Your task to perform on an android device: turn off javascript in the chrome app Image 0: 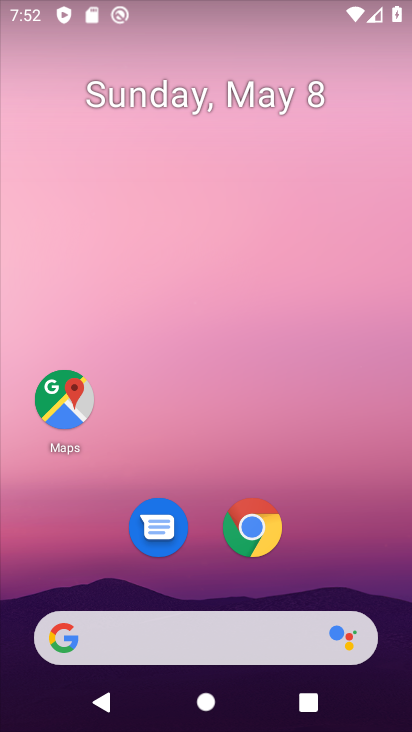
Step 0: drag from (333, 366) to (334, 30)
Your task to perform on an android device: turn off javascript in the chrome app Image 1: 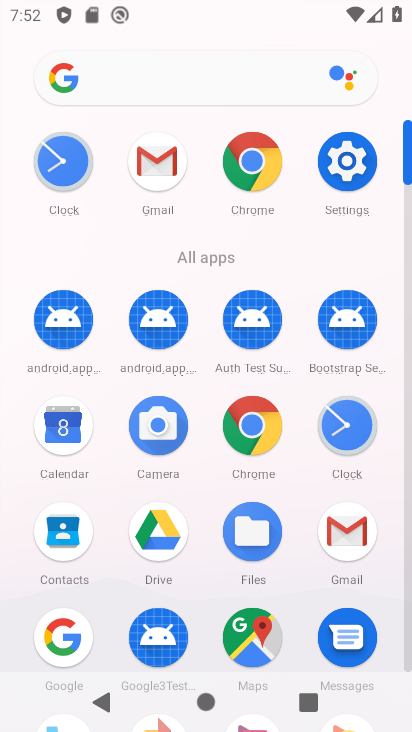
Step 1: drag from (21, 571) to (20, 253)
Your task to perform on an android device: turn off javascript in the chrome app Image 2: 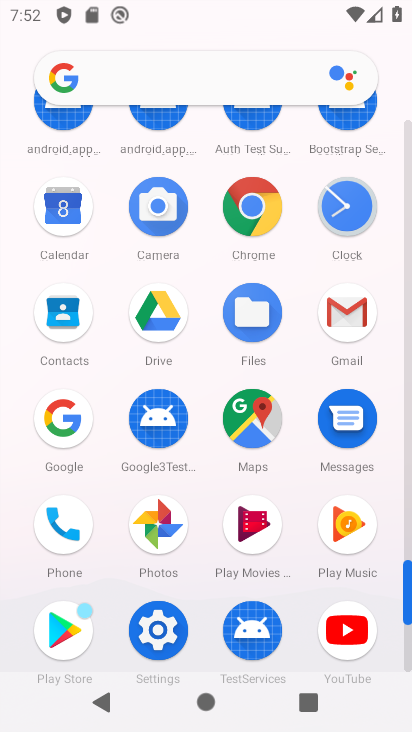
Step 2: click (251, 205)
Your task to perform on an android device: turn off javascript in the chrome app Image 3: 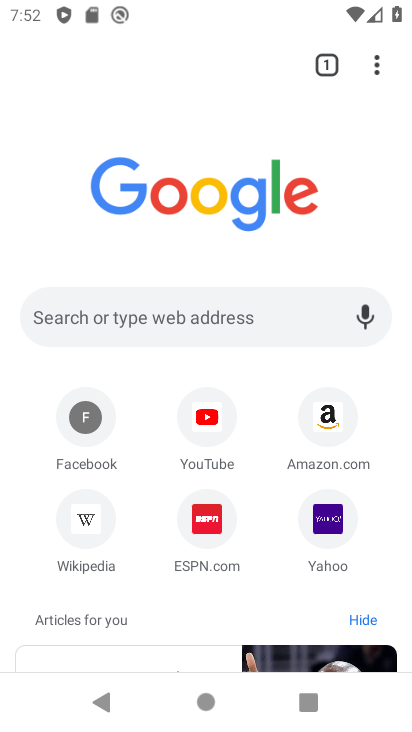
Step 3: drag from (373, 65) to (197, 530)
Your task to perform on an android device: turn off javascript in the chrome app Image 4: 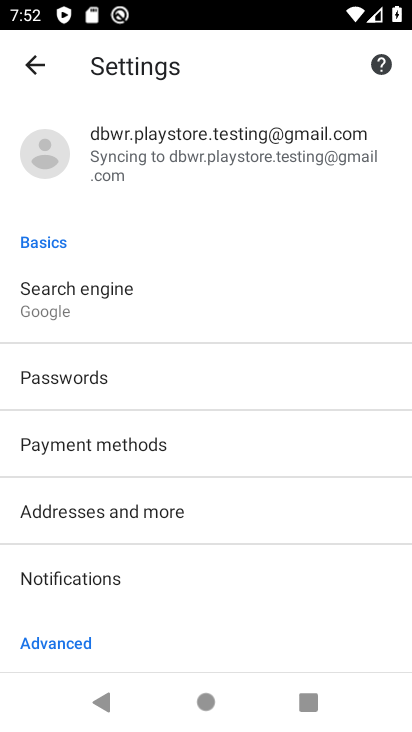
Step 4: drag from (202, 554) to (213, 177)
Your task to perform on an android device: turn off javascript in the chrome app Image 5: 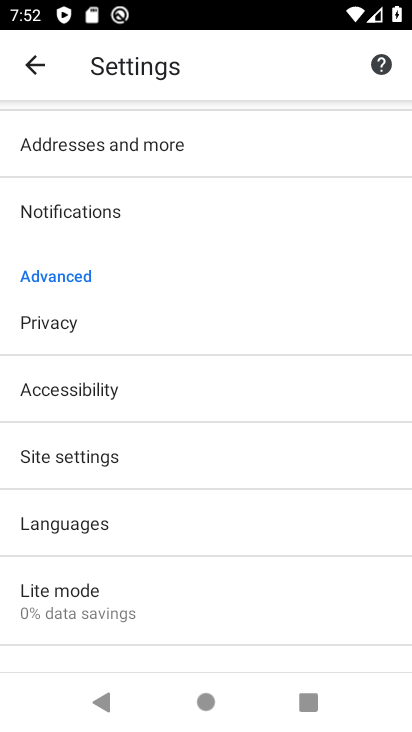
Step 5: click (144, 452)
Your task to perform on an android device: turn off javascript in the chrome app Image 6: 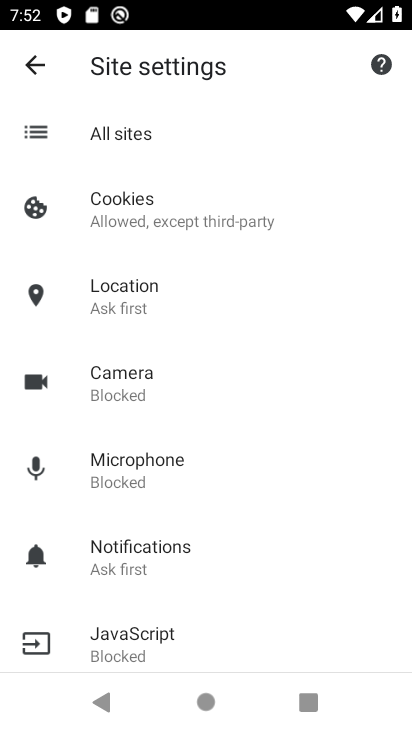
Step 6: drag from (244, 528) to (232, 112)
Your task to perform on an android device: turn off javascript in the chrome app Image 7: 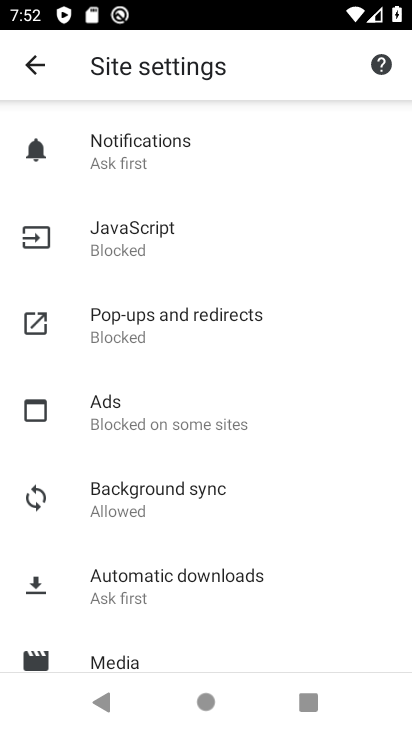
Step 7: click (168, 239)
Your task to perform on an android device: turn off javascript in the chrome app Image 8: 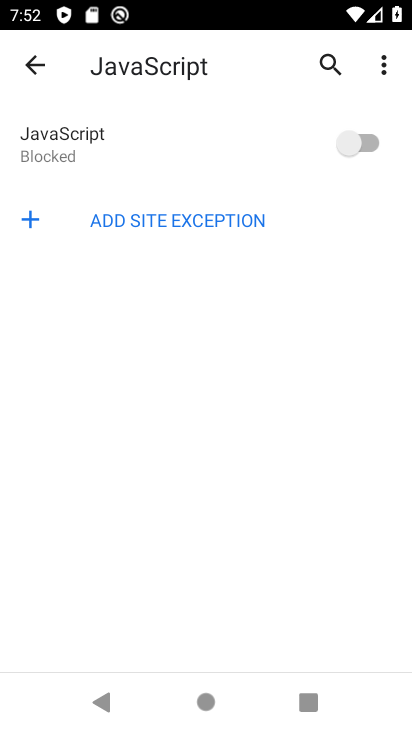
Step 8: task complete